Your task to perform on an android device: toggle priority inbox in the gmail app Image 0: 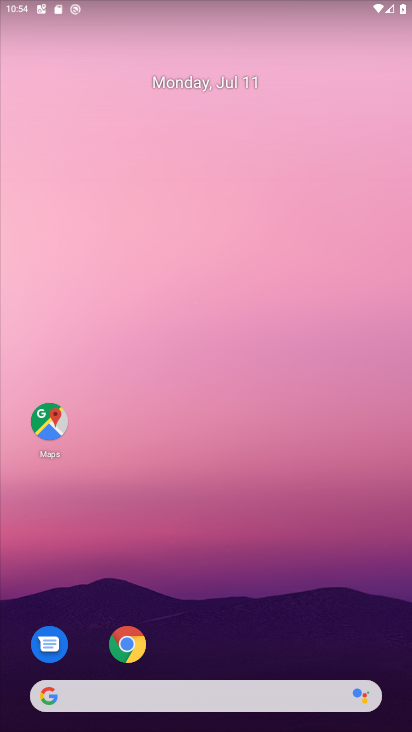
Step 0: drag from (254, 601) to (192, 107)
Your task to perform on an android device: toggle priority inbox in the gmail app Image 1: 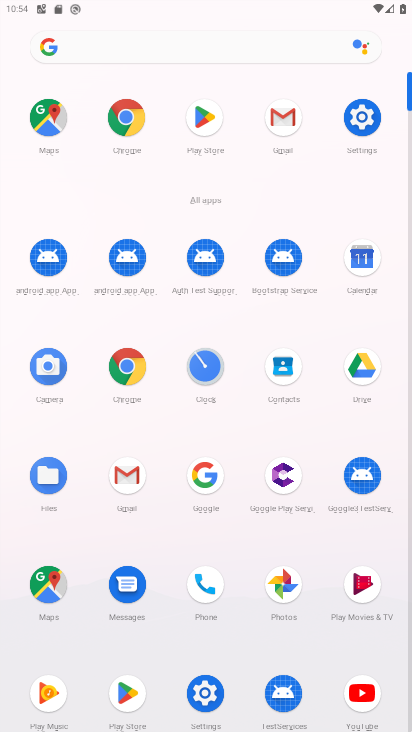
Step 1: click (286, 109)
Your task to perform on an android device: toggle priority inbox in the gmail app Image 2: 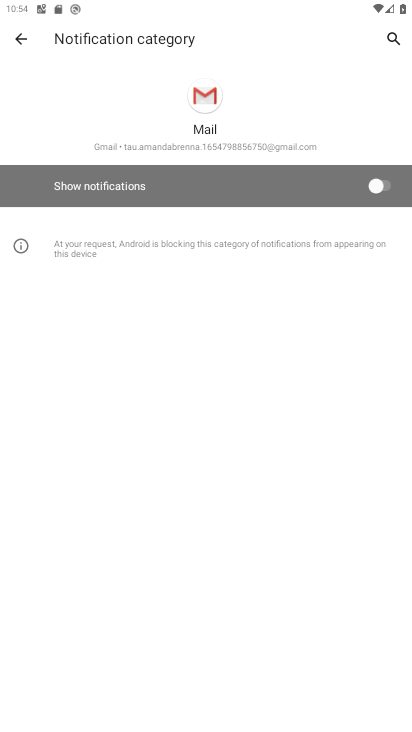
Step 2: click (18, 51)
Your task to perform on an android device: toggle priority inbox in the gmail app Image 3: 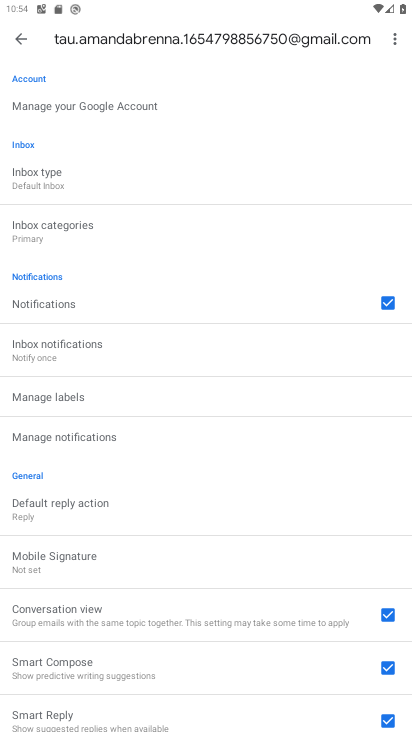
Step 3: click (59, 184)
Your task to perform on an android device: toggle priority inbox in the gmail app Image 4: 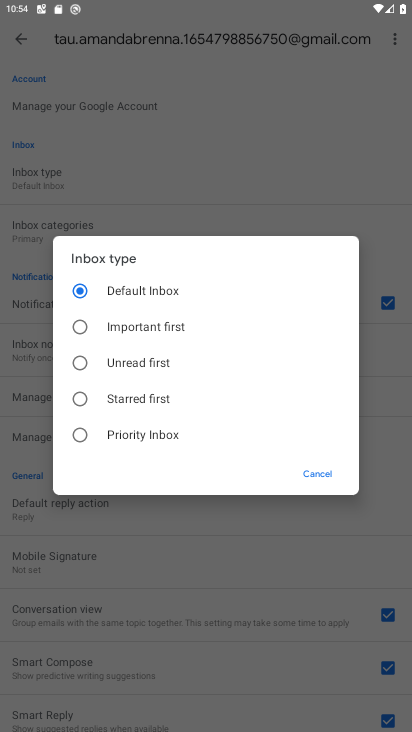
Step 4: click (121, 438)
Your task to perform on an android device: toggle priority inbox in the gmail app Image 5: 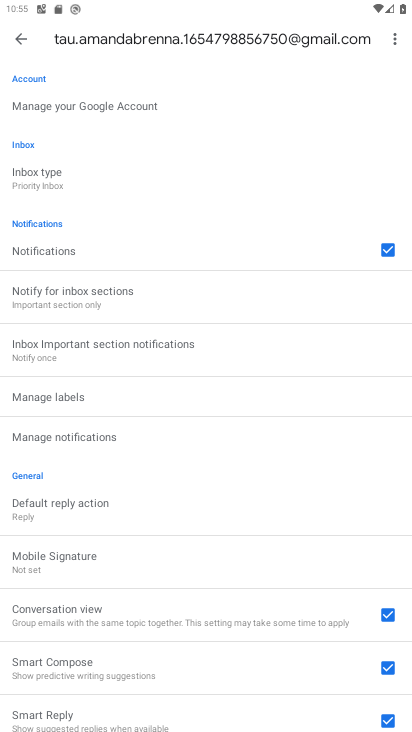
Step 5: task complete